Your task to perform on an android device: Open the phone app and click the voicemail tab. Image 0: 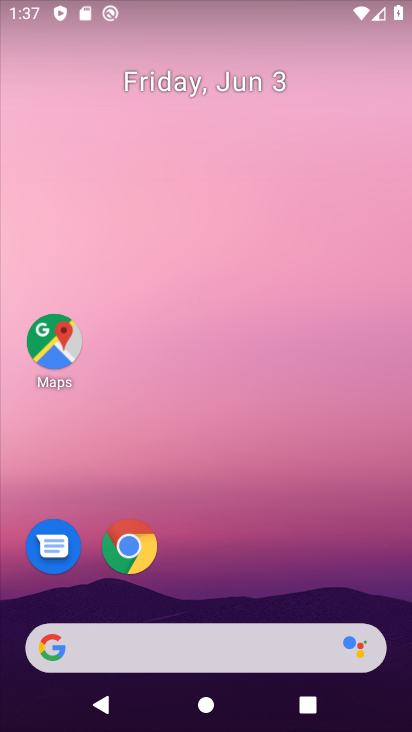
Step 0: drag from (225, 628) to (199, 37)
Your task to perform on an android device: Open the phone app and click the voicemail tab. Image 1: 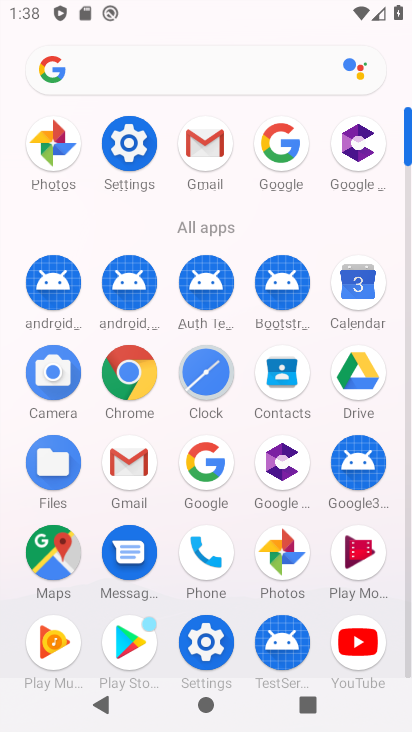
Step 1: click (193, 569)
Your task to perform on an android device: Open the phone app and click the voicemail tab. Image 2: 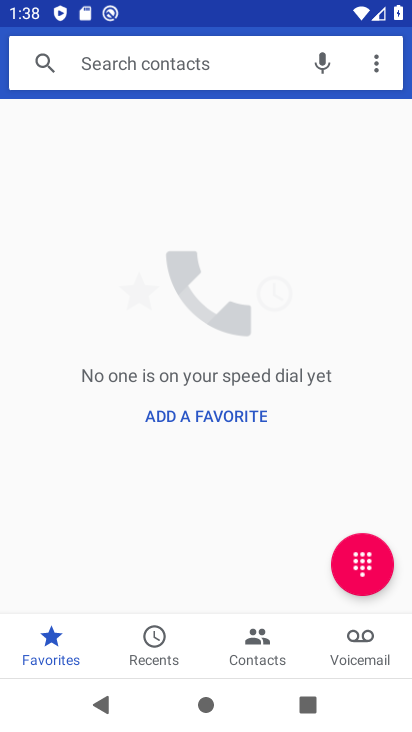
Step 2: click (356, 623)
Your task to perform on an android device: Open the phone app and click the voicemail tab. Image 3: 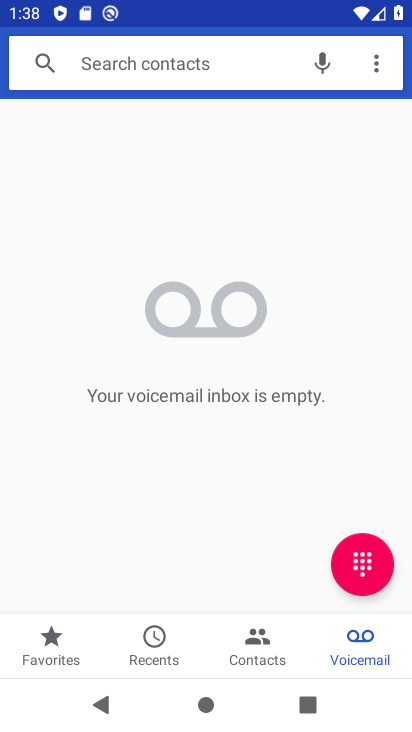
Step 3: task complete